Your task to perform on an android device: refresh tabs in the chrome app Image 0: 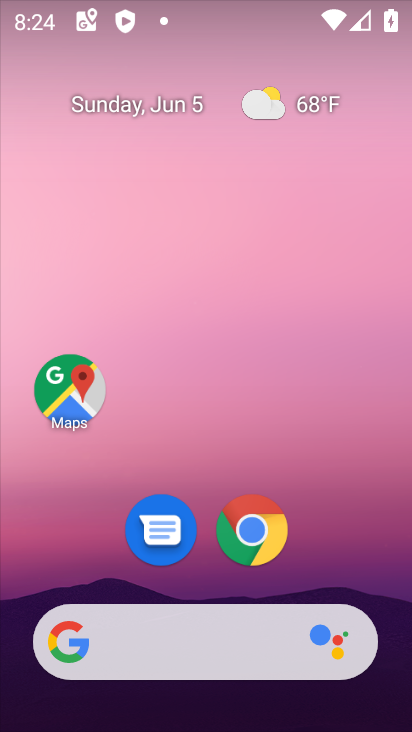
Step 0: click (253, 533)
Your task to perform on an android device: refresh tabs in the chrome app Image 1: 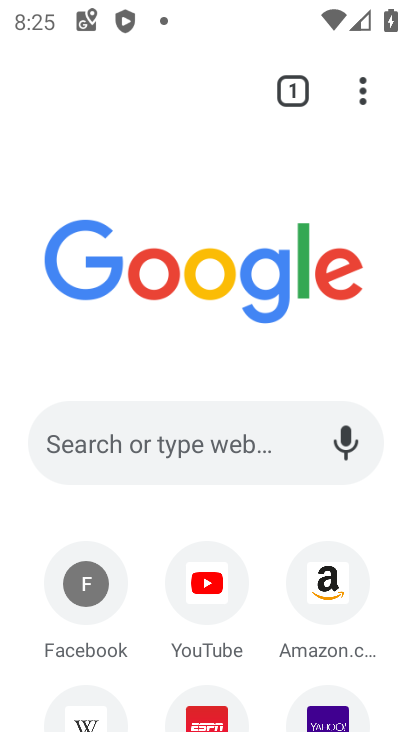
Step 1: click (365, 95)
Your task to perform on an android device: refresh tabs in the chrome app Image 2: 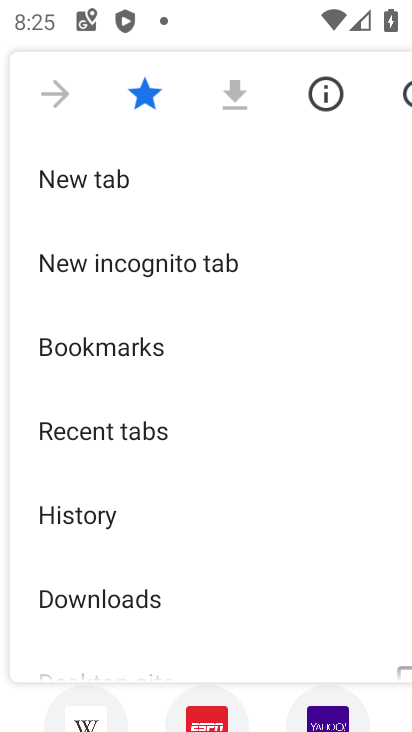
Step 2: click (401, 92)
Your task to perform on an android device: refresh tabs in the chrome app Image 3: 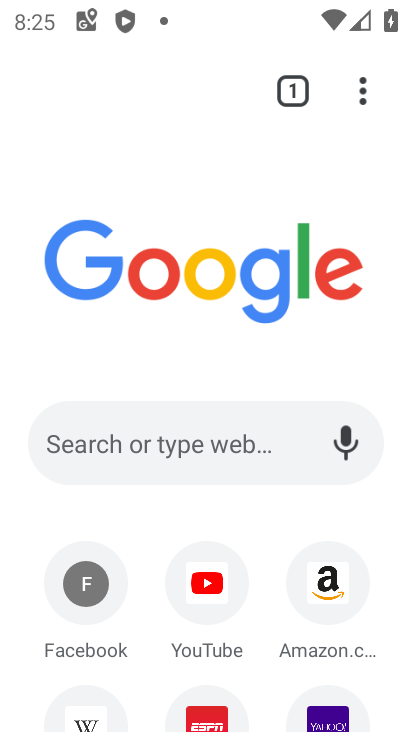
Step 3: task complete